Your task to perform on an android device: Open the Play Movies app and select the watchlist tab. Image 0: 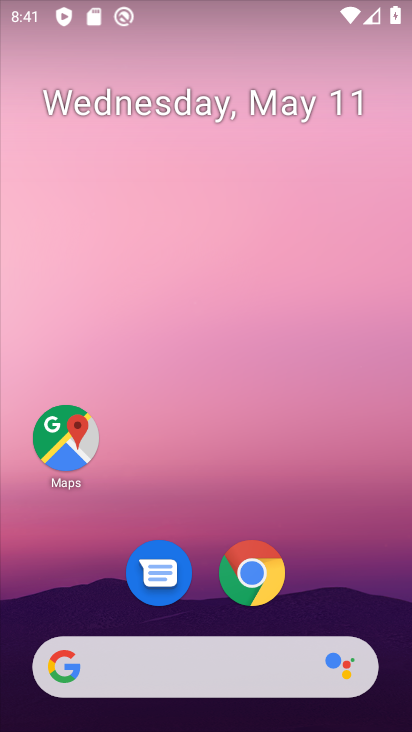
Step 0: drag from (332, 611) to (323, 11)
Your task to perform on an android device: Open the Play Movies app and select the watchlist tab. Image 1: 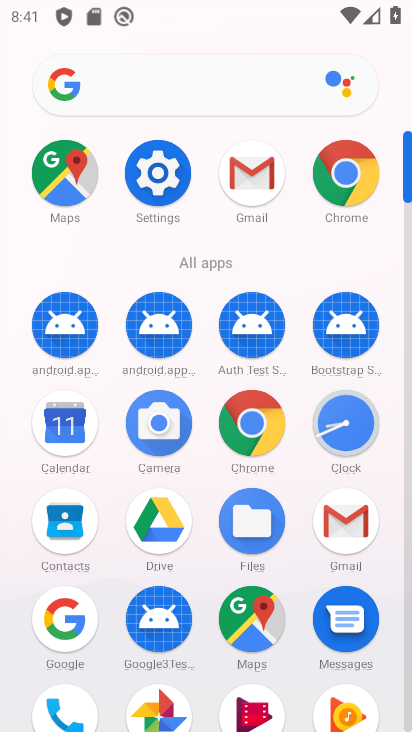
Step 1: click (250, 711)
Your task to perform on an android device: Open the Play Movies app and select the watchlist tab. Image 2: 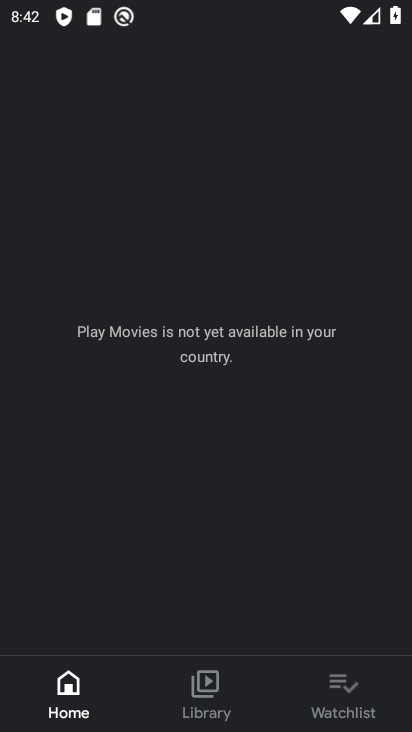
Step 2: click (352, 709)
Your task to perform on an android device: Open the Play Movies app and select the watchlist tab. Image 3: 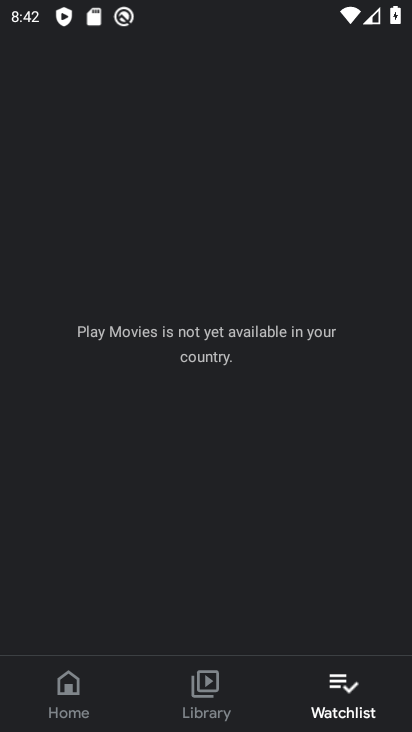
Step 3: task complete